Your task to perform on an android device: What's on my calendar tomorrow? Image 0: 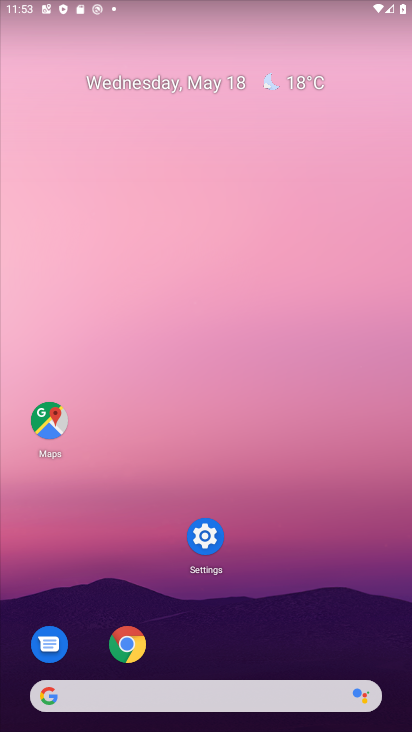
Step 0: drag from (378, 666) to (241, 274)
Your task to perform on an android device: What's on my calendar tomorrow? Image 1: 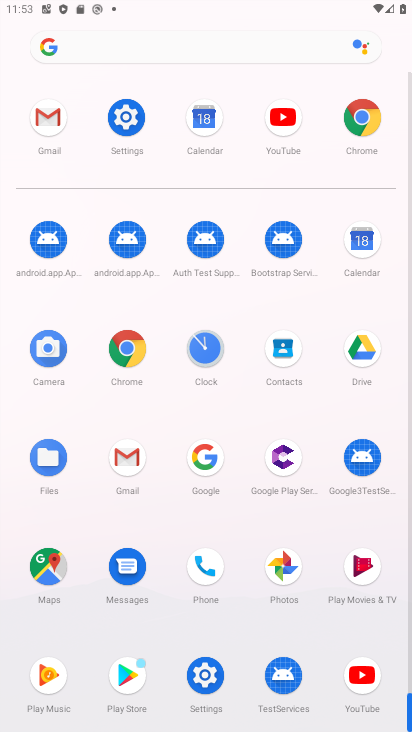
Step 1: click (365, 235)
Your task to perform on an android device: What's on my calendar tomorrow? Image 2: 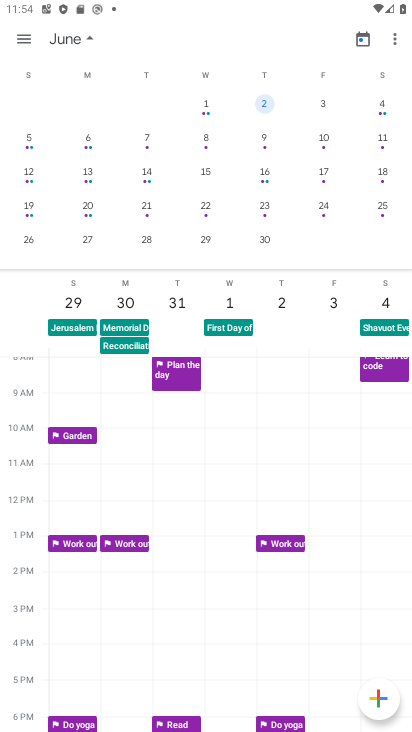
Step 2: drag from (41, 159) to (379, 159)
Your task to perform on an android device: What's on my calendar tomorrow? Image 3: 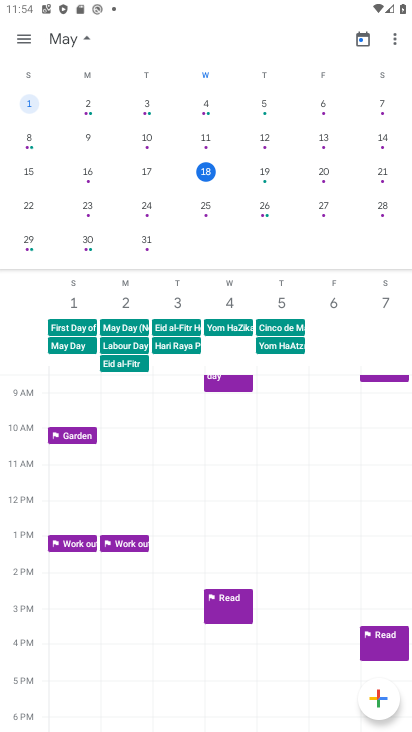
Step 3: click (261, 173)
Your task to perform on an android device: What's on my calendar tomorrow? Image 4: 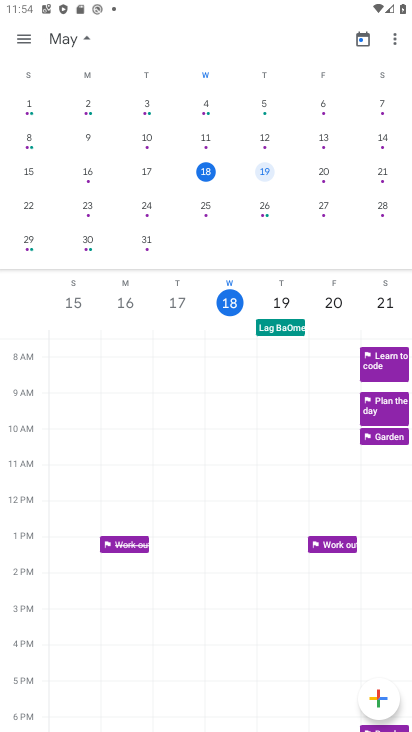
Step 4: click (19, 46)
Your task to perform on an android device: What's on my calendar tomorrow? Image 5: 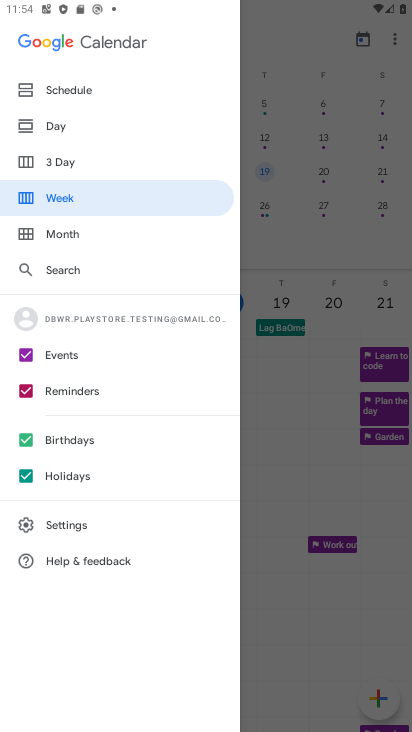
Step 5: click (61, 136)
Your task to perform on an android device: What's on my calendar tomorrow? Image 6: 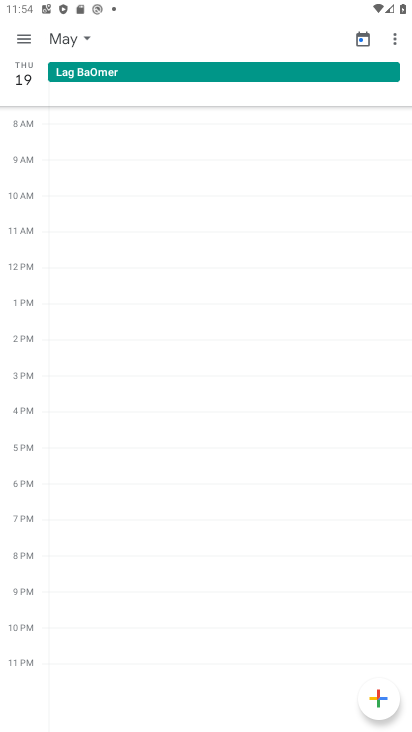
Step 6: task complete